Your task to perform on an android device: Search for logitech g502 on target, select the first entry, and add it to the cart. Image 0: 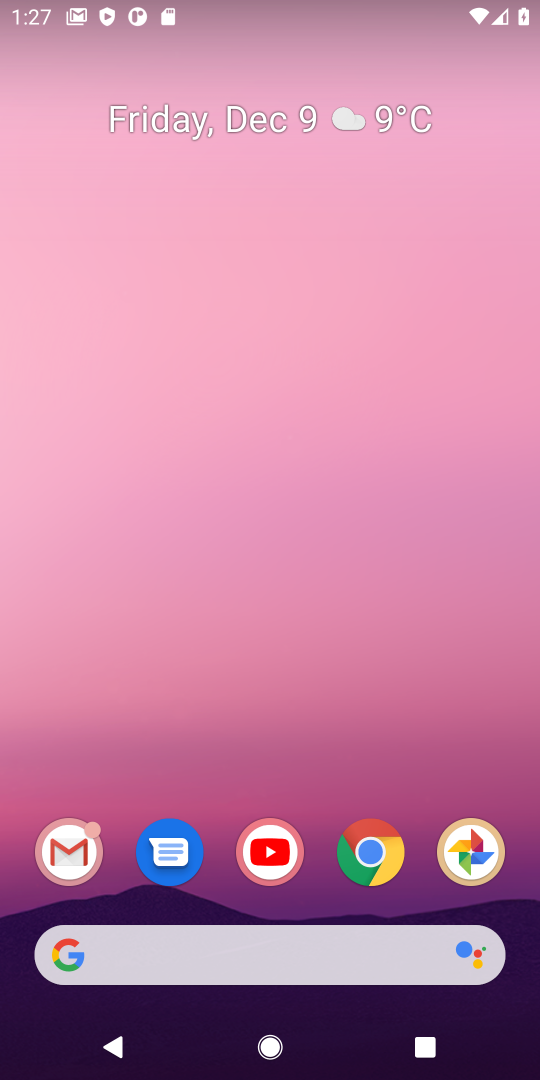
Step 0: click (374, 868)
Your task to perform on an android device: Search for logitech g502 on target, select the first entry, and add it to the cart. Image 1: 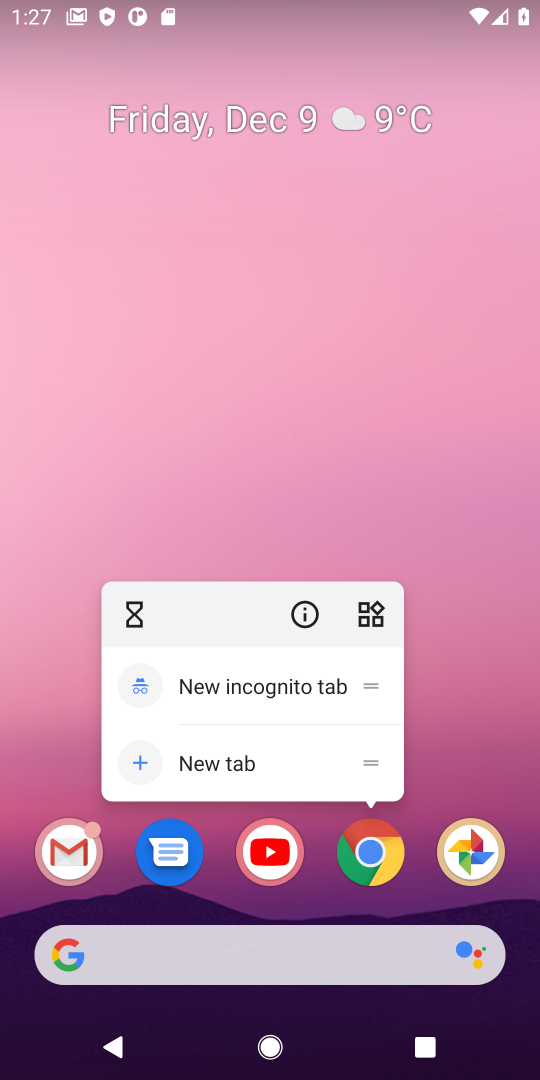
Step 1: click (383, 864)
Your task to perform on an android device: Search for logitech g502 on target, select the first entry, and add it to the cart. Image 2: 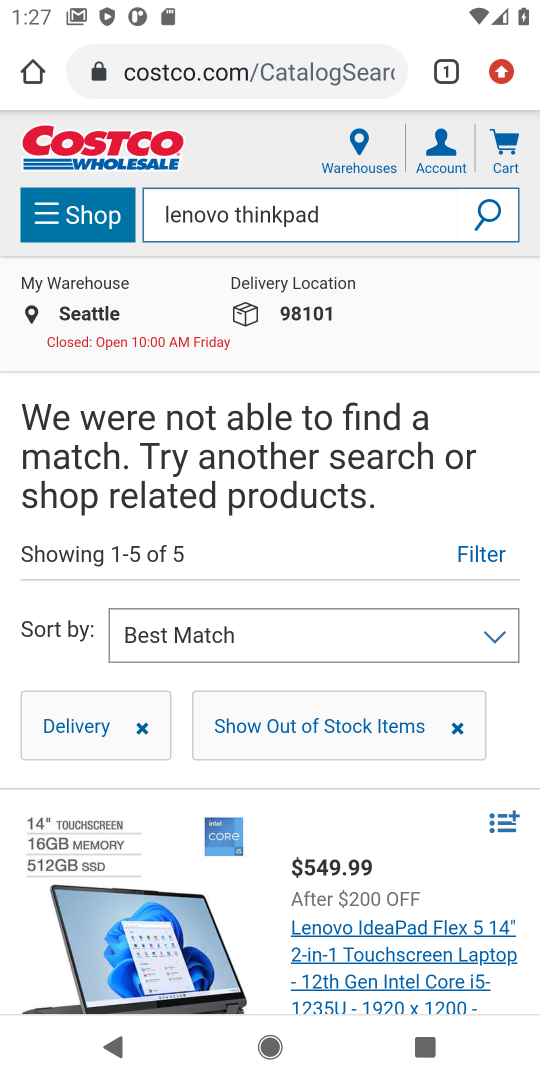
Step 2: click (204, 75)
Your task to perform on an android device: Search for logitech g502 on target, select the first entry, and add it to the cart. Image 3: 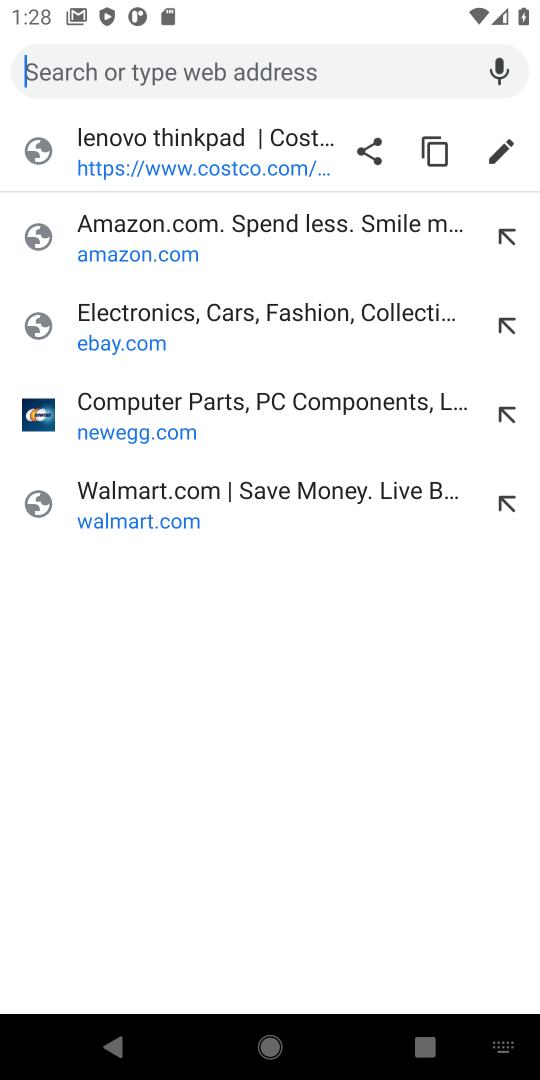
Step 3: type "target"
Your task to perform on an android device: Search for logitech g502 on target, select the first entry, and add it to the cart. Image 4: 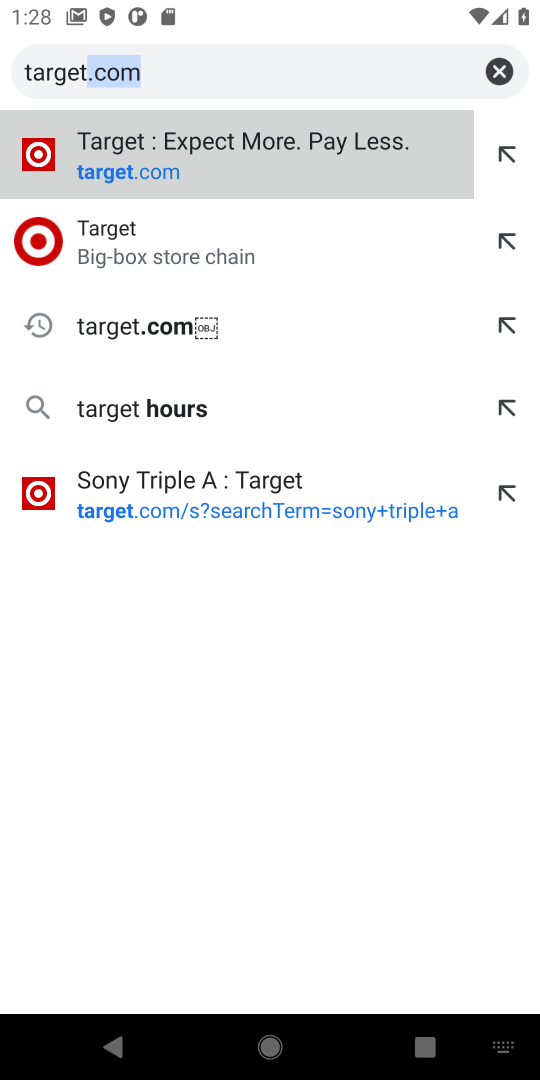
Step 4: click (165, 165)
Your task to perform on an android device: Search for logitech g502 on target, select the first entry, and add it to the cart. Image 5: 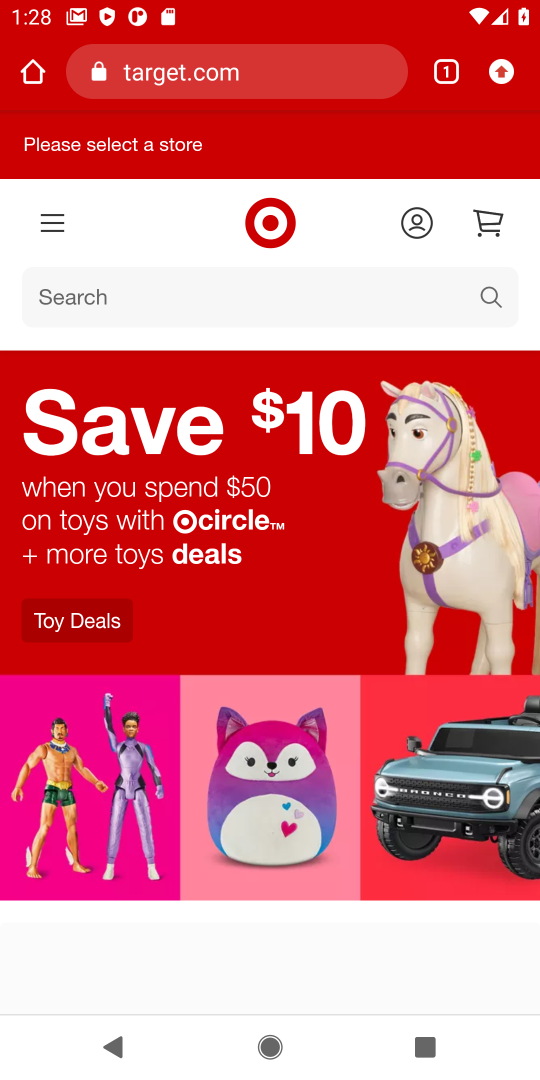
Step 5: click (198, 309)
Your task to perform on an android device: Search for logitech g502 on target, select the first entry, and add it to the cart. Image 6: 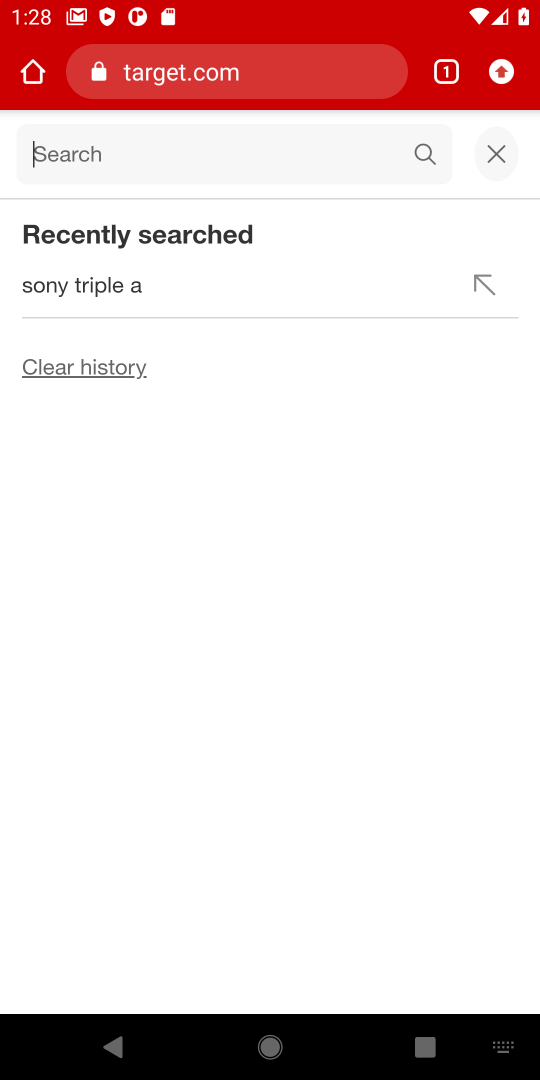
Step 6: type "logitech g502"
Your task to perform on an android device: Search for logitech g502 on target, select the first entry, and add it to the cart. Image 7: 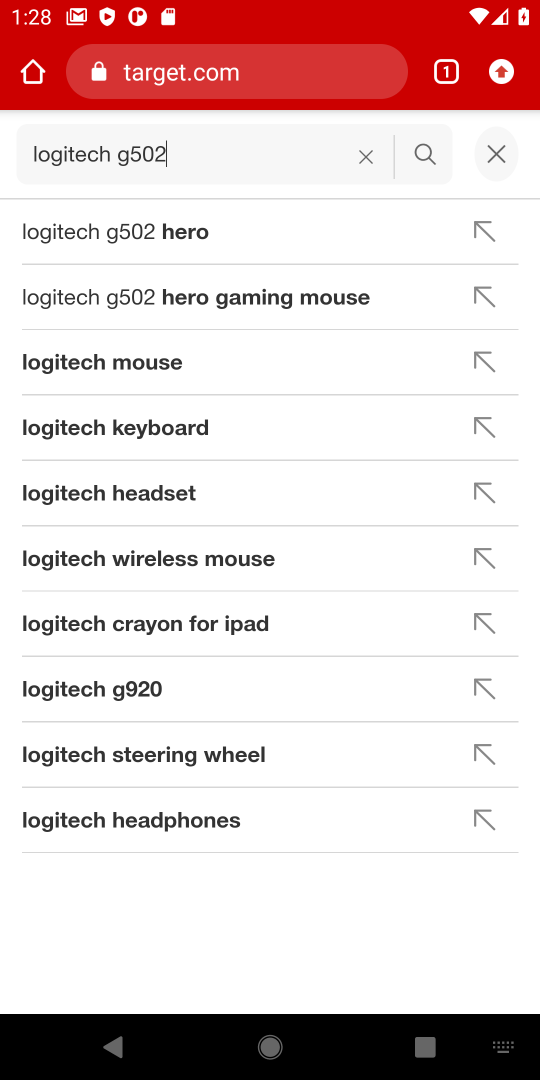
Step 7: press enter
Your task to perform on an android device: Search for logitech g502 on target, select the first entry, and add it to the cart. Image 8: 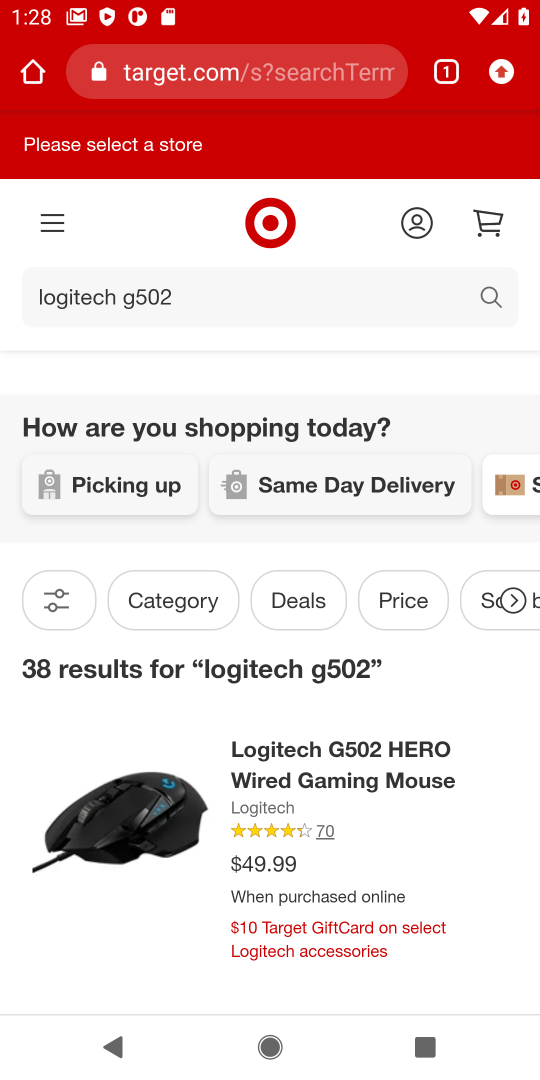
Step 8: drag from (374, 774) to (214, 746)
Your task to perform on an android device: Search for logitech g502 on target, select the first entry, and add it to the cart. Image 9: 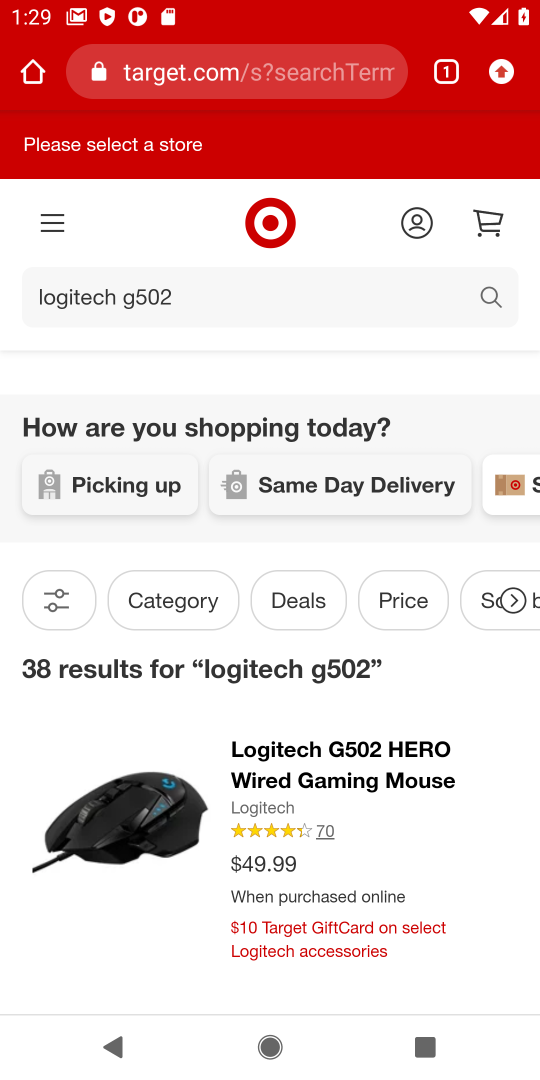
Step 9: click (334, 773)
Your task to perform on an android device: Search for logitech g502 on target, select the first entry, and add it to the cart. Image 10: 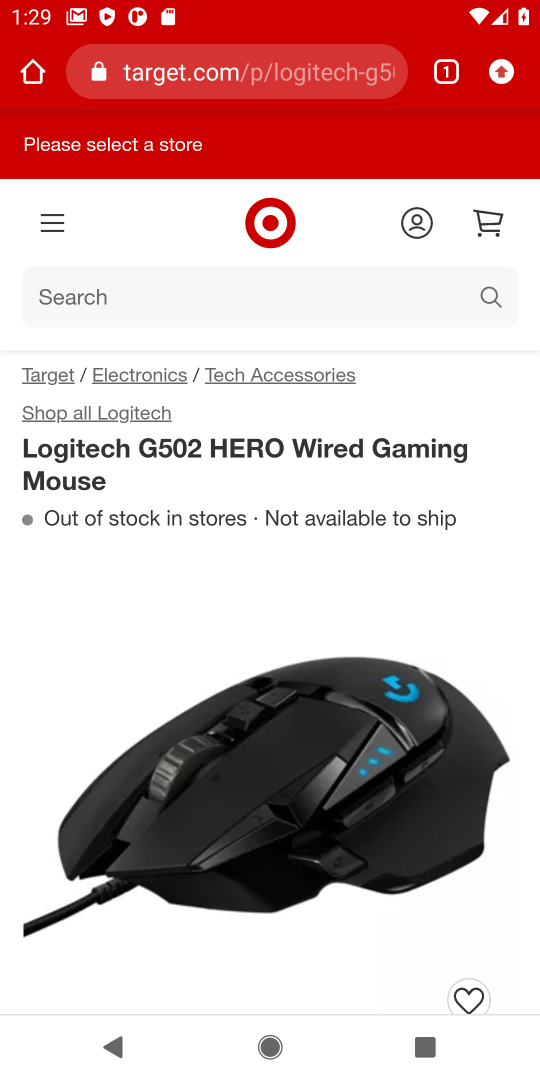
Step 10: drag from (336, 841) to (362, 504)
Your task to perform on an android device: Search for logitech g502 on target, select the first entry, and add it to the cart. Image 11: 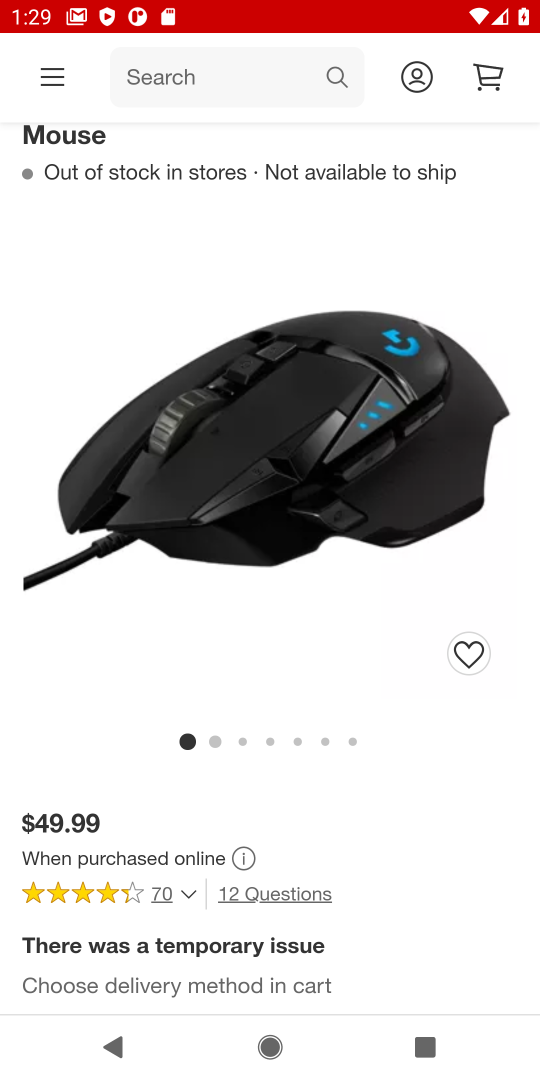
Step 11: drag from (308, 467) to (302, 407)
Your task to perform on an android device: Search for logitech g502 on target, select the first entry, and add it to the cart. Image 12: 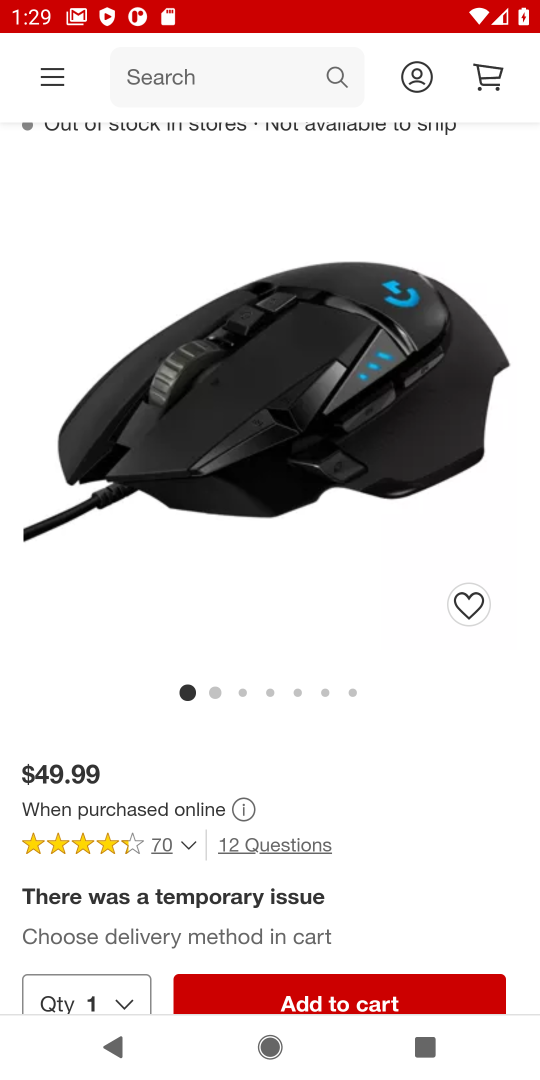
Step 12: click (365, 1004)
Your task to perform on an android device: Search for logitech g502 on target, select the first entry, and add it to the cart. Image 13: 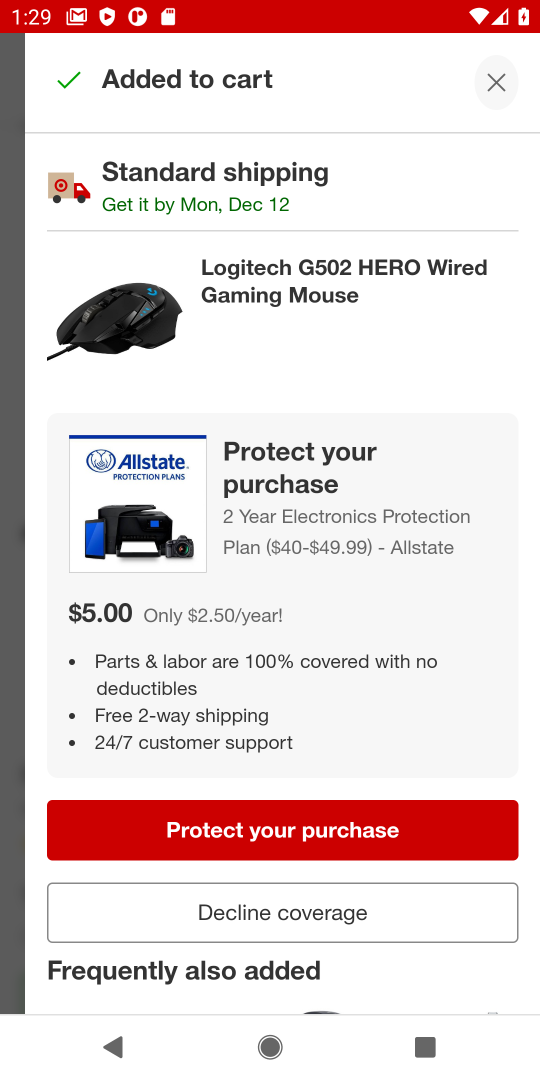
Step 13: drag from (379, 926) to (385, 696)
Your task to perform on an android device: Search for logitech g502 on target, select the first entry, and add it to the cart. Image 14: 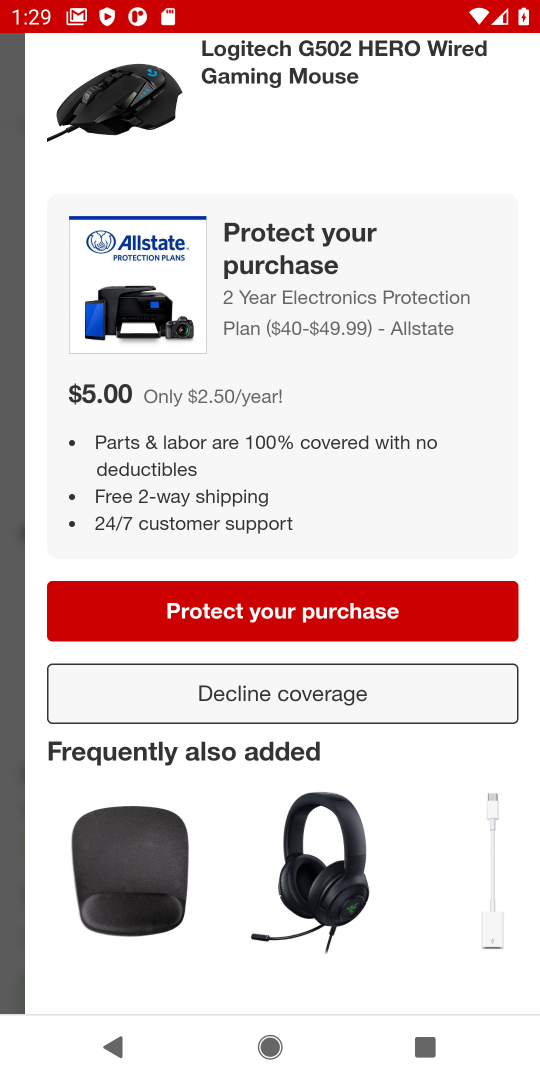
Step 14: click (314, 626)
Your task to perform on an android device: Search for logitech g502 on target, select the first entry, and add it to the cart. Image 15: 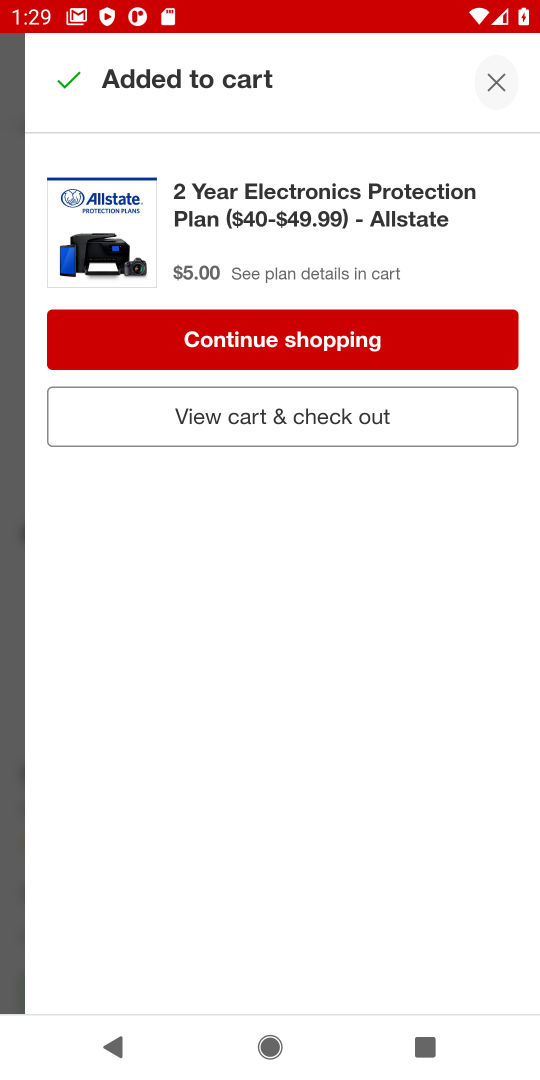
Step 15: click (264, 428)
Your task to perform on an android device: Search for logitech g502 on target, select the first entry, and add it to the cart. Image 16: 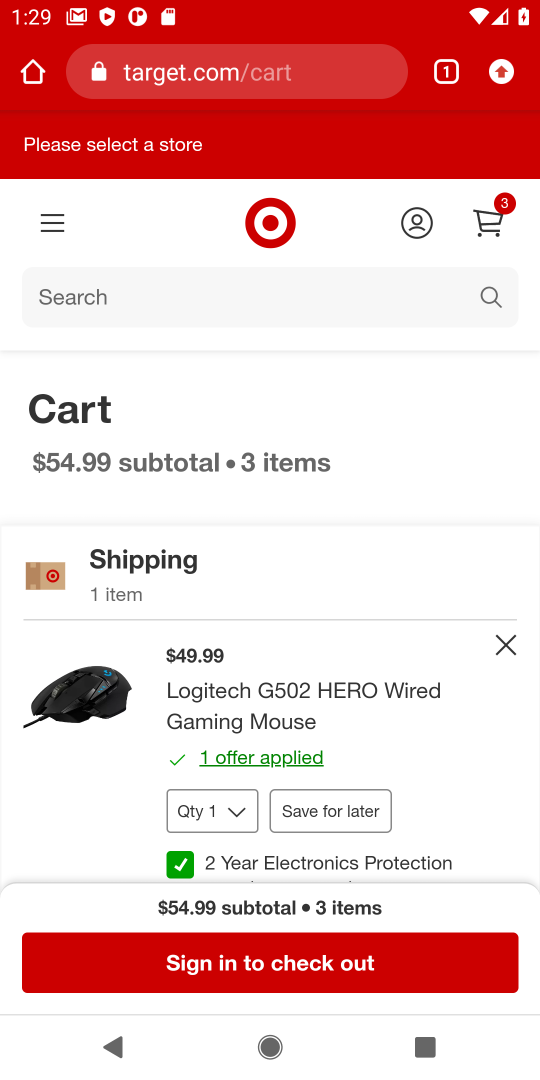
Step 16: task complete